Your task to perform on an android device: Open sound settings Image 0: 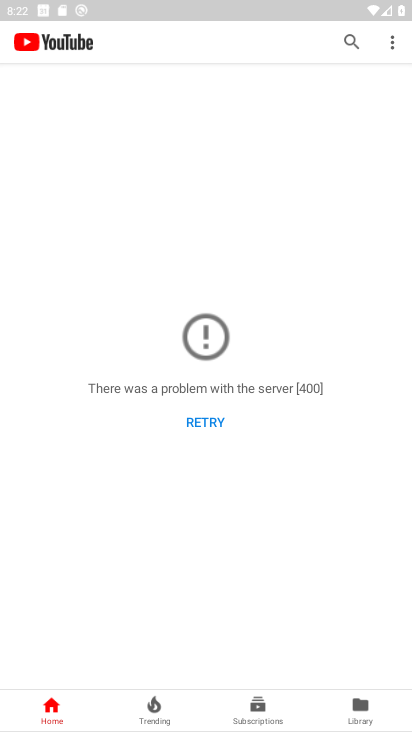
Step 0: press home button
Your task to perform on an android device: Open sound settings Image 1: 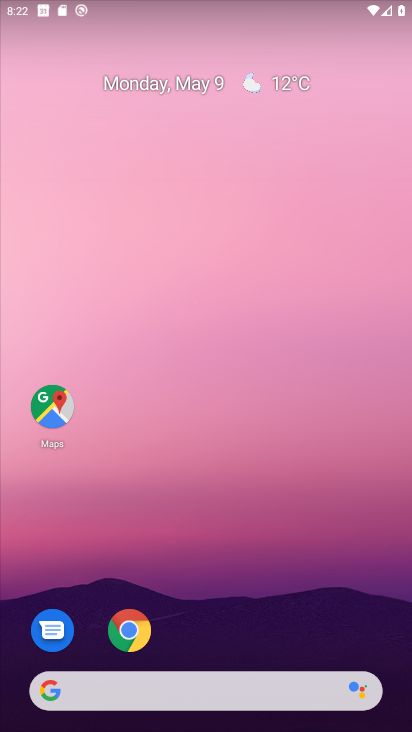
Step 1: drag from (235, 628) to (342, 29)
Your task to perform on an android device: Open sound settings Image 2: 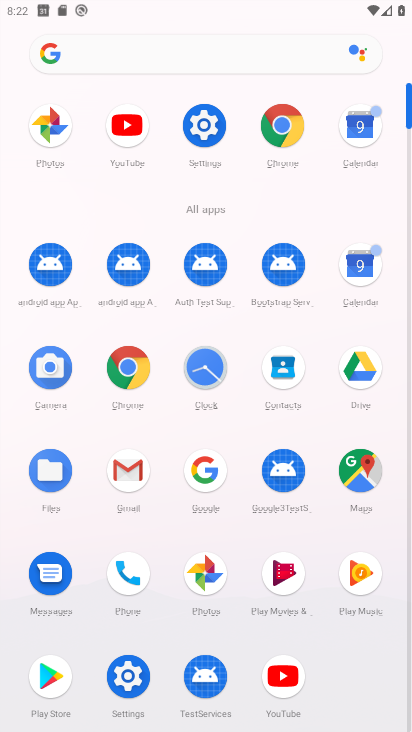
Step 2: click (212, 148)
Your task to perform on an android device: Open sound settings Image 3: 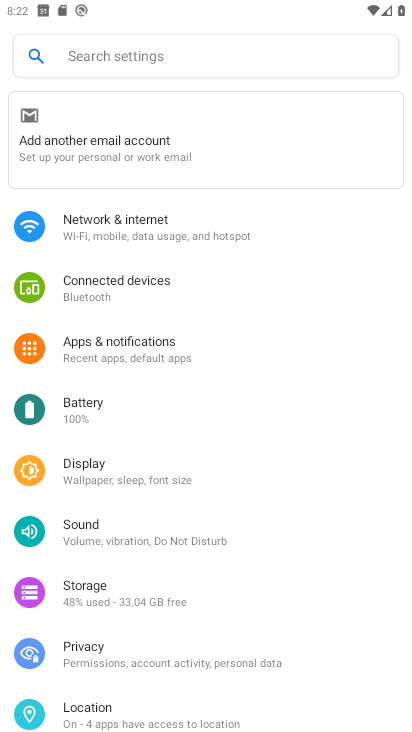
Step 3: click (116, 540)
Your task to perform on an android device: Open sound settings Image 4: 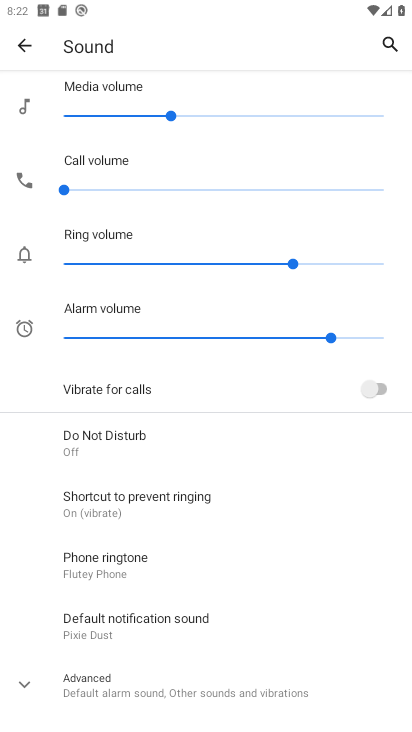
Step 4: task complete